Your task to perform on an android device: Go to CNN.com Image 0: 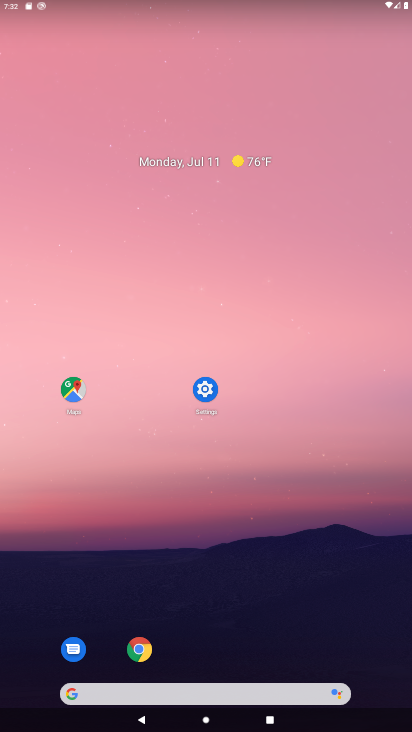
Step 0: click (136, 645)
Your task to perform on an android device: Go to CNN.com Image 1: 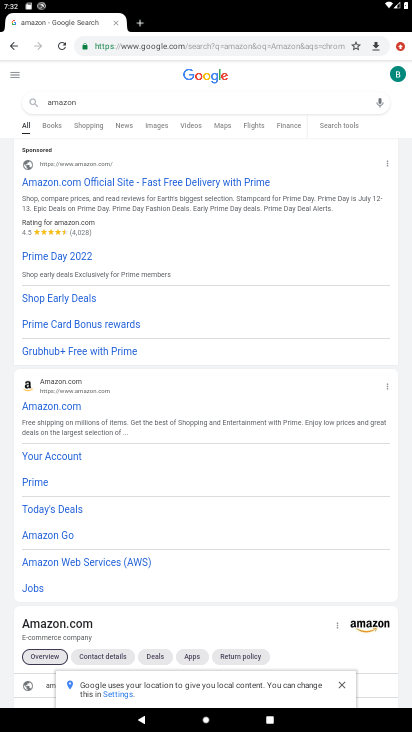
Step 1: click (140, 97)
Your task to perform on an android device: Go to CNN.com Image 2: 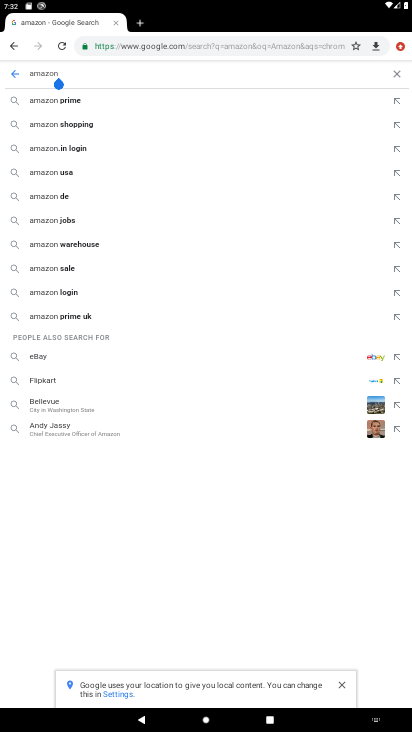
Step 2: click (327, 40)
Your task to perform on an android device: Go to CNN.com Image 3: 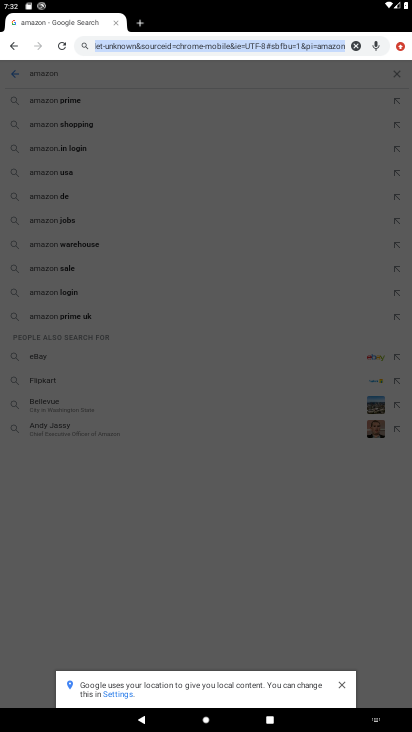
Step 3: click (354, 45)
Your task to perform on an android device: Go to CNN.com Image 4: 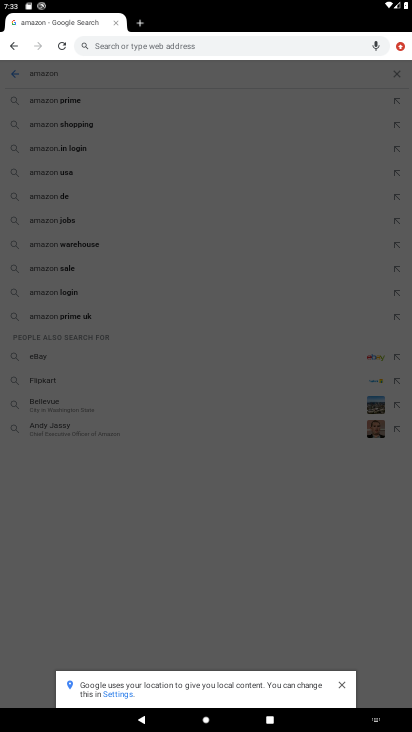
Step 4: type "CNN.com"
Your task to perform on an android device: Go to CNN.com Image 5: 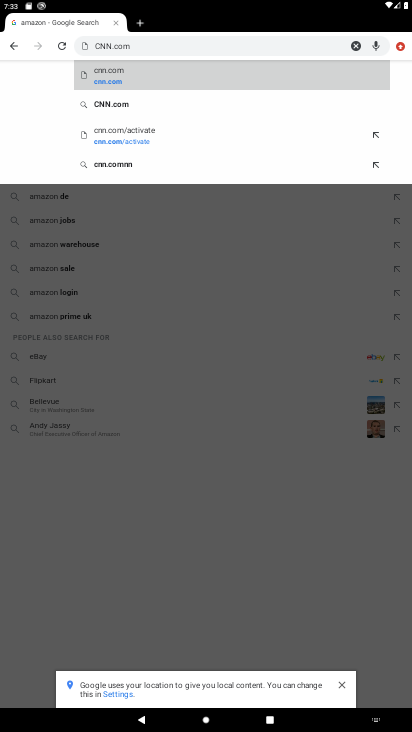
Step 5: click (108, 104)
Your task to perform on an android device: Go to CNN.com Image 6: 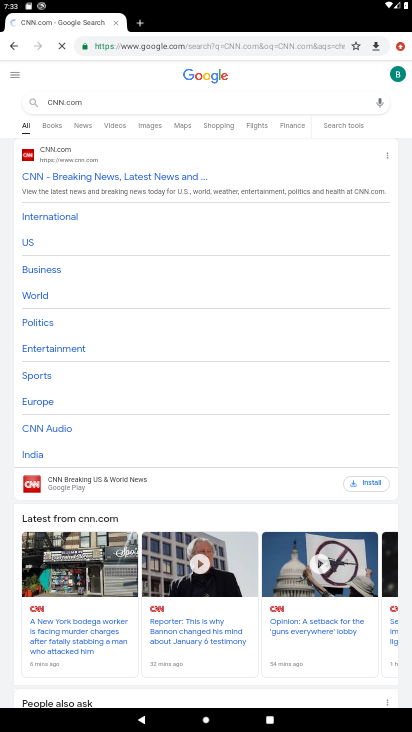
Step 6: task complete